Your task to perform on an android device: open app "Gmail" (install if not already installed) Image 0: 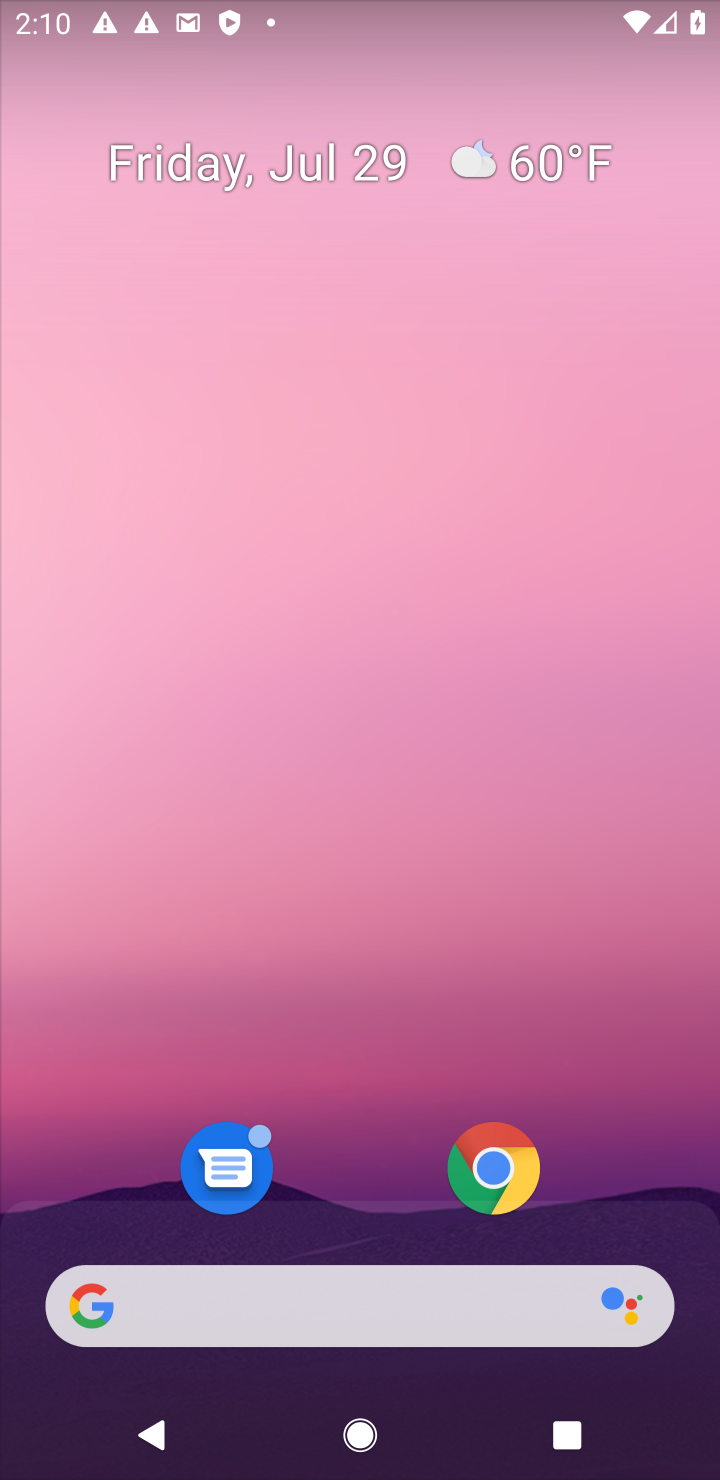
Step 0: drag from (474, 1332) to (479, 515)
Your task to perform on an android device: open app "Gmail" (install if not already installed) Image 1: 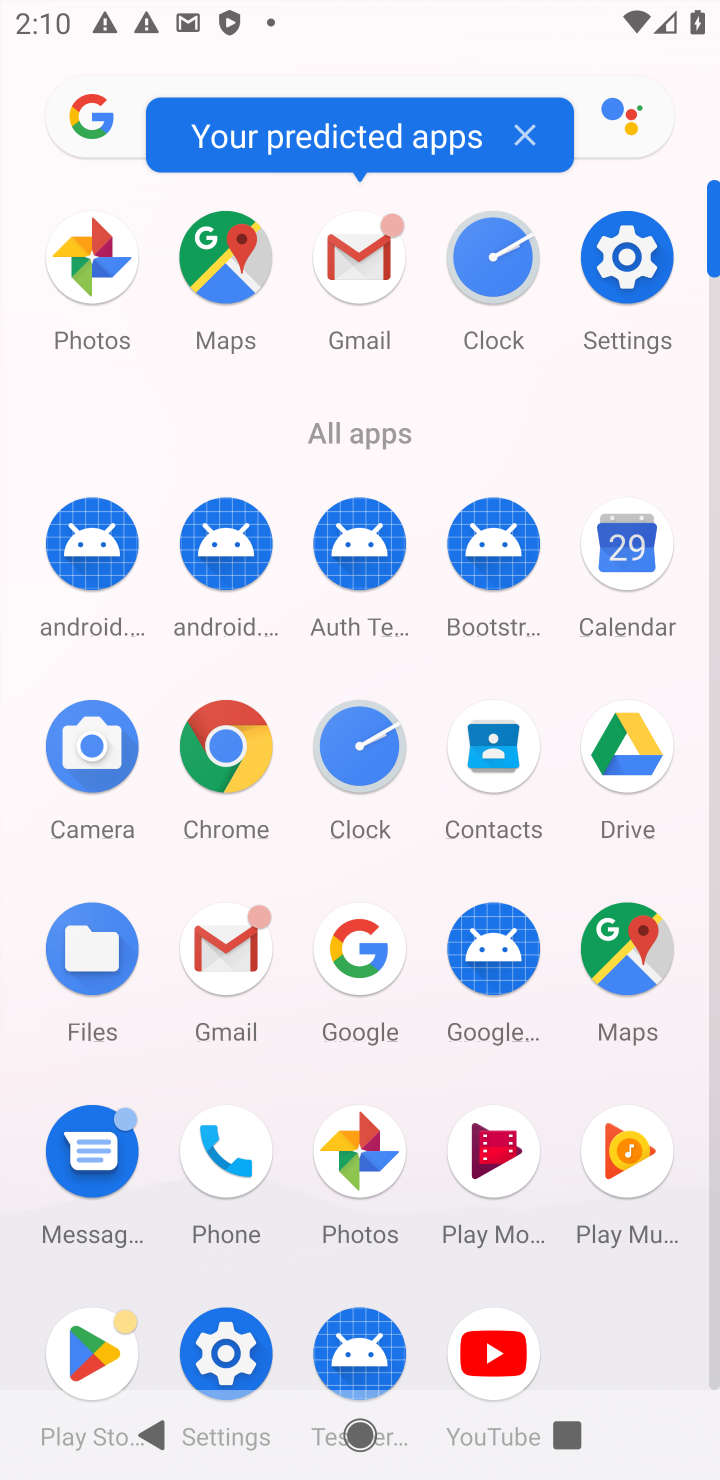
Step 1: click (349, 260)
Your task to perform on an android device: open app "Gmail" (install if not already installed) Image 2: 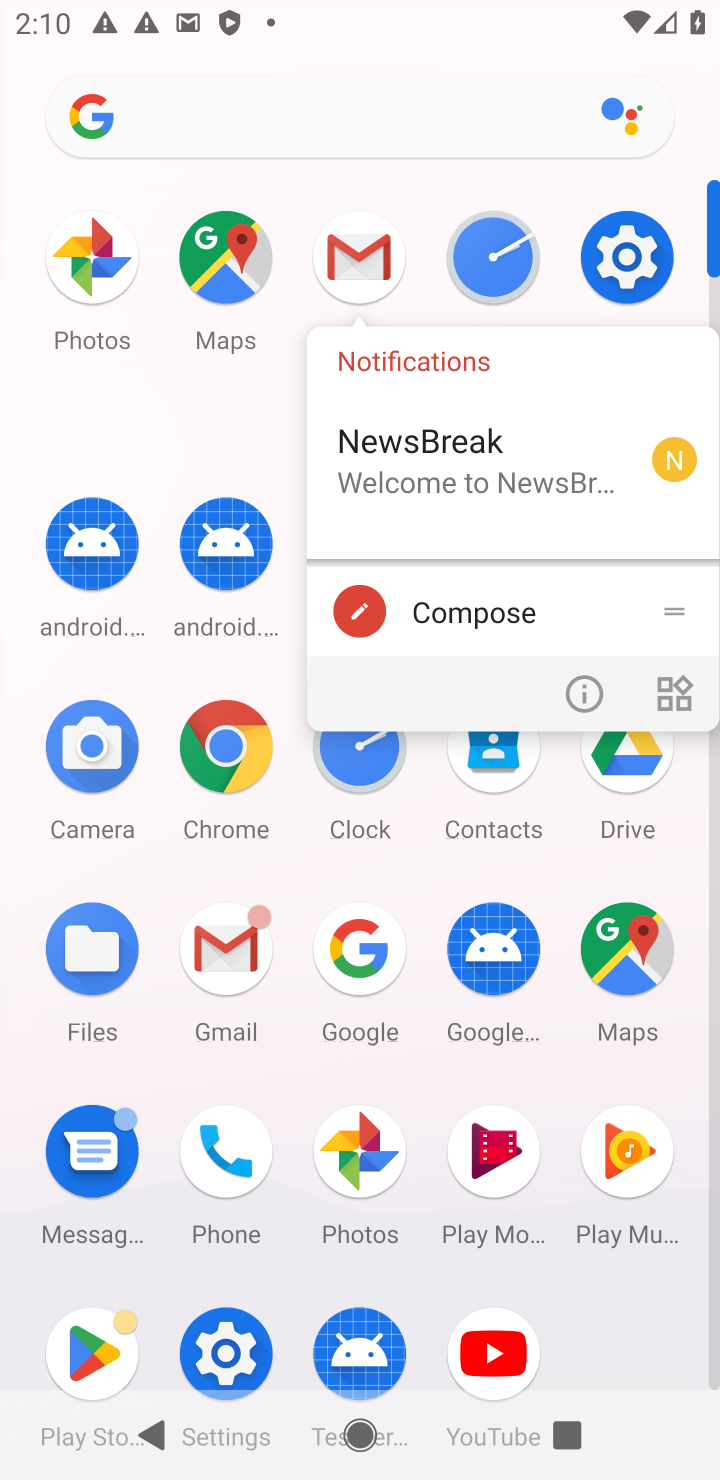
Step 2: click (366, 254)
Your task to perform on an android device: open app "Gmail" (install if not already installed) Image 3: 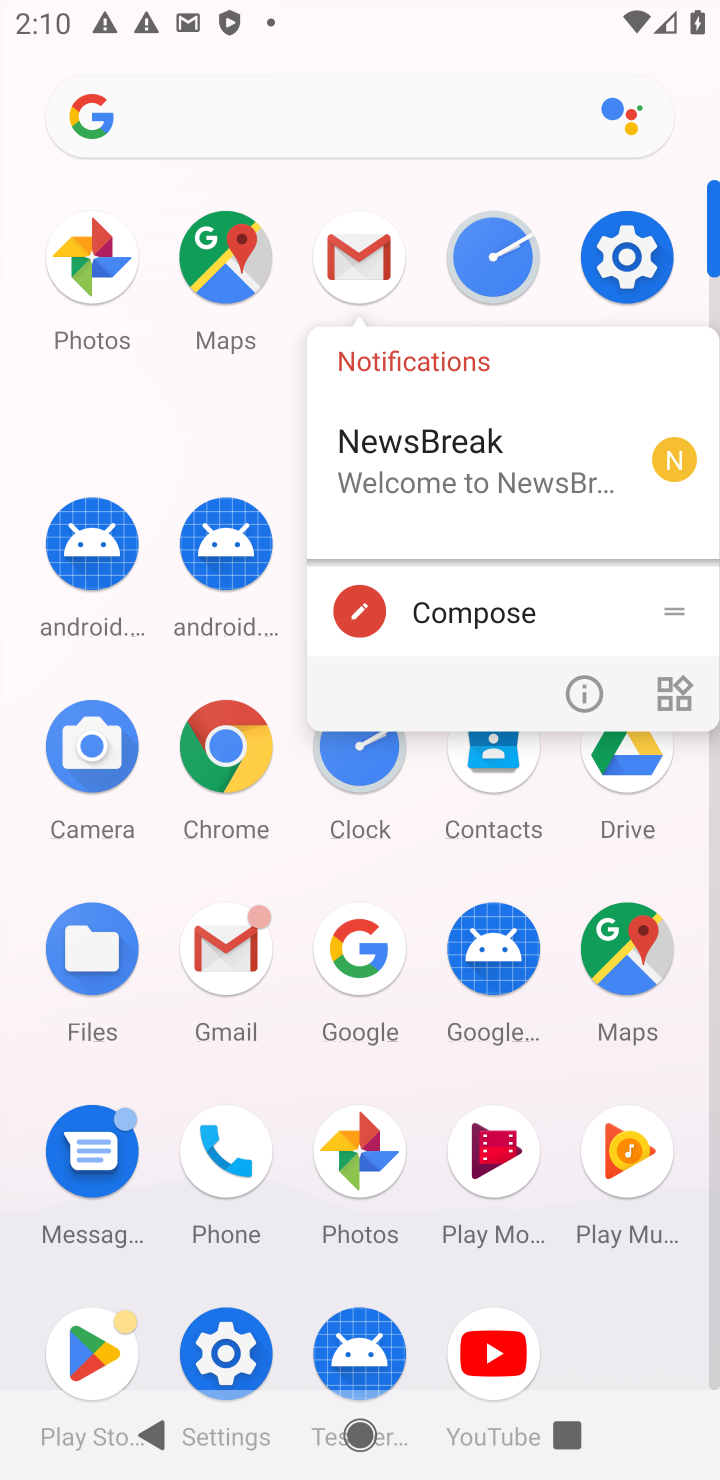
Step 3: click (353, 262)
Your task to perform on an android device: open app "Gmail" (install if not already installed) Image 4: 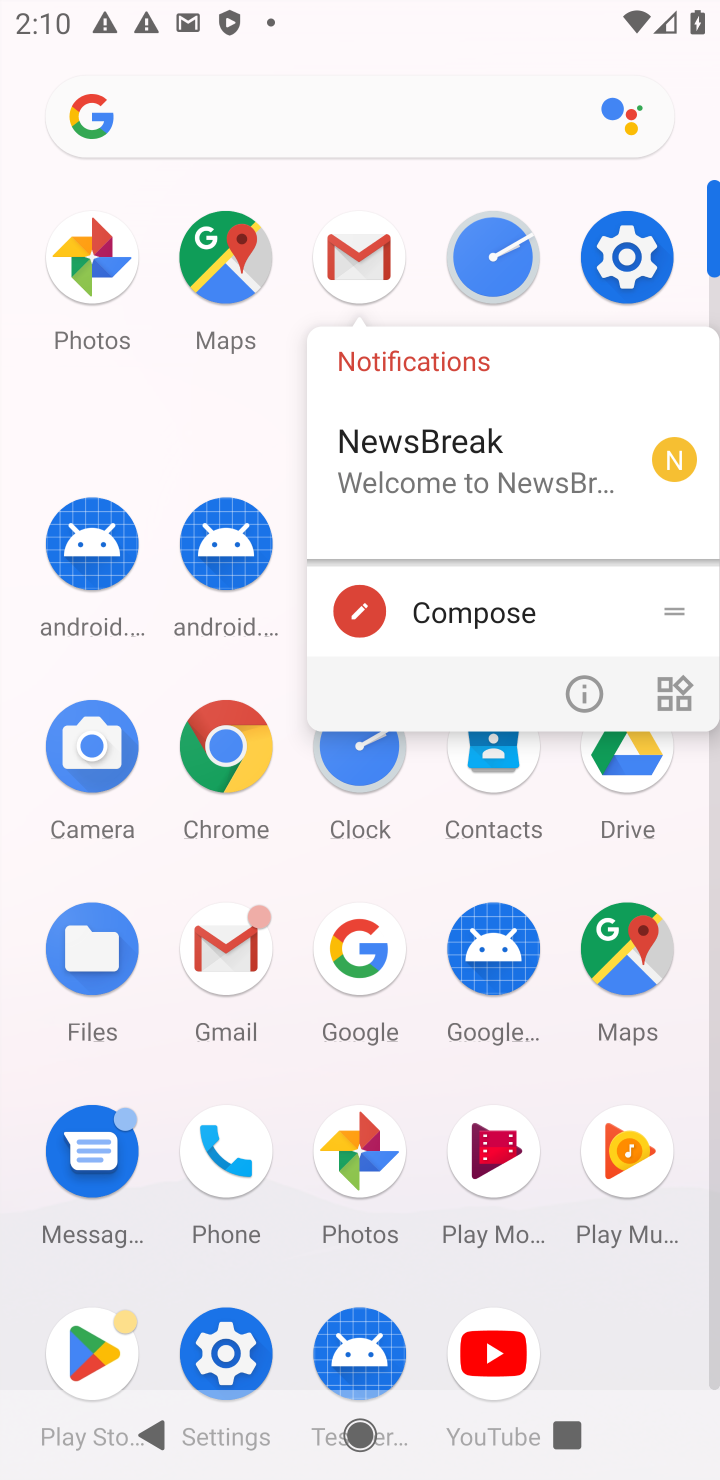
Step 4: click (240, 979)
Your task to perform on an android device: open app "Gmail" (install if not already installed) Image 5: 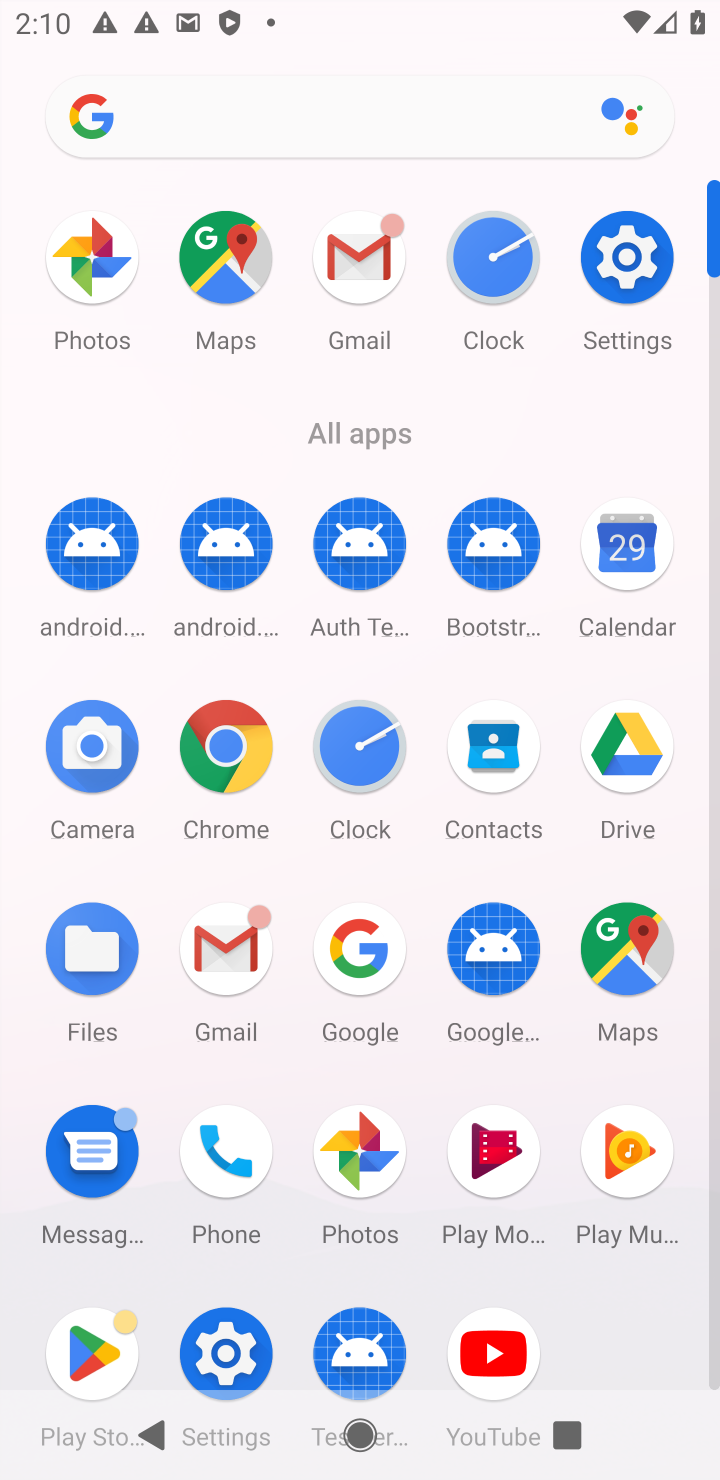
Step 5: click (225, 960)
Your task to perform on an android device: open app "Gmail" (install if not already installed) Image 6: 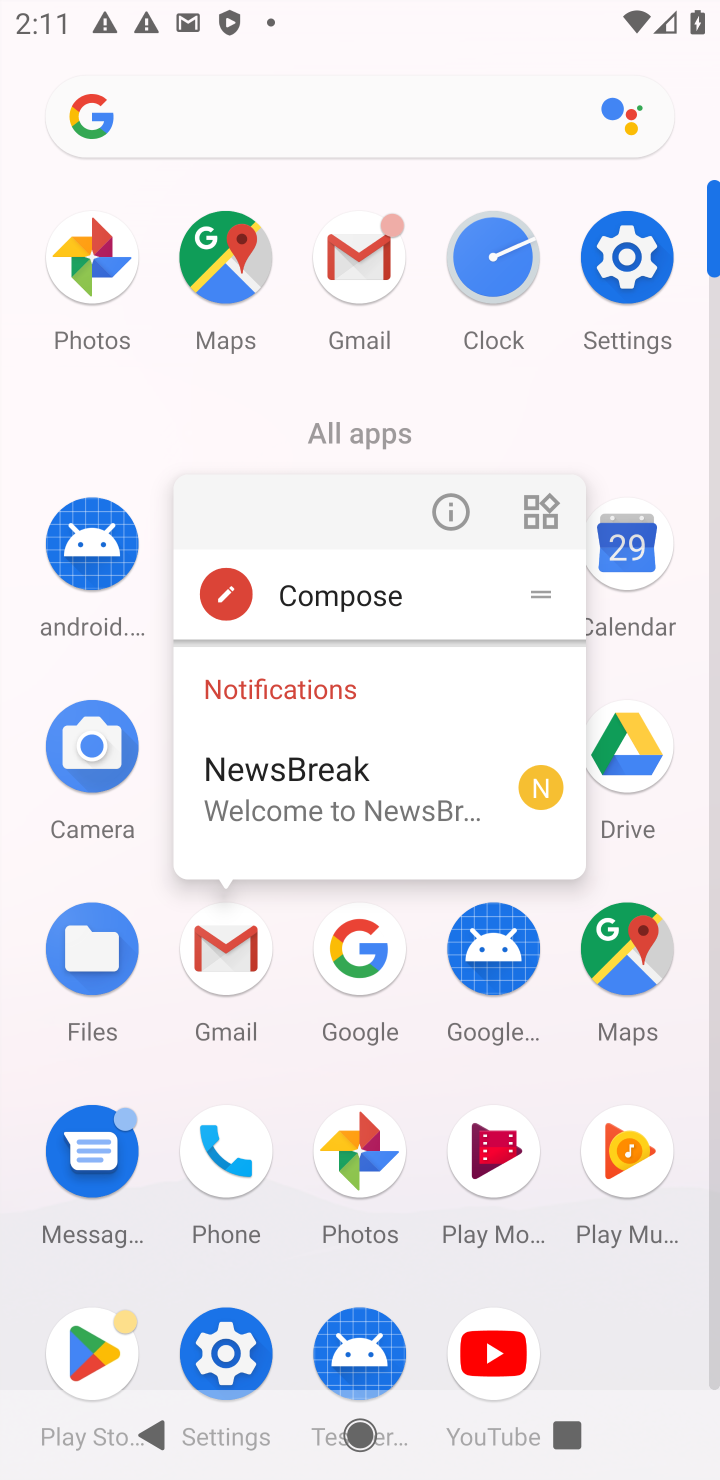
Step 6: click (225, 960)
Your task to perform on an android device: open app "Gmail" (install if not already installed) Image 7: 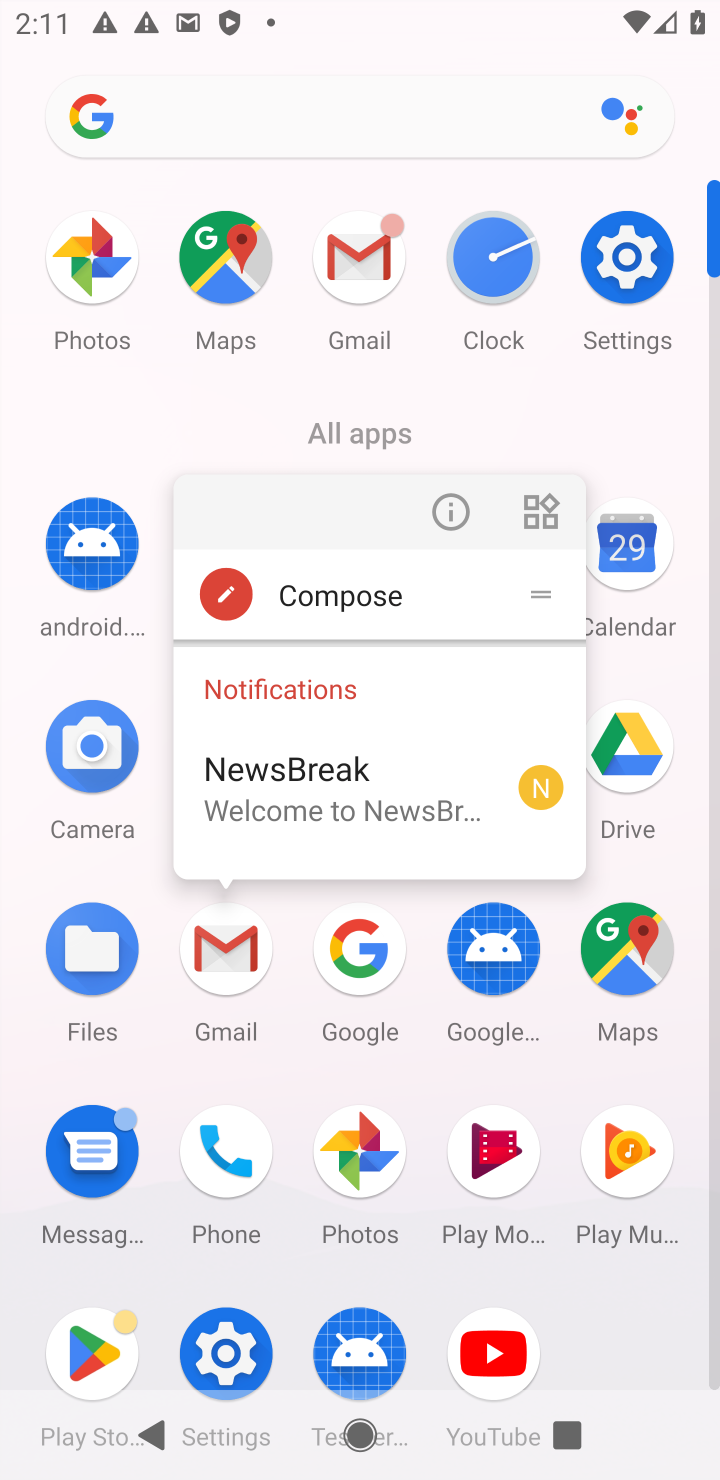
Step 7: click (225, 960)
Your task to perform on an android device: open app "Gmail" (install if not already installed) Image 8: 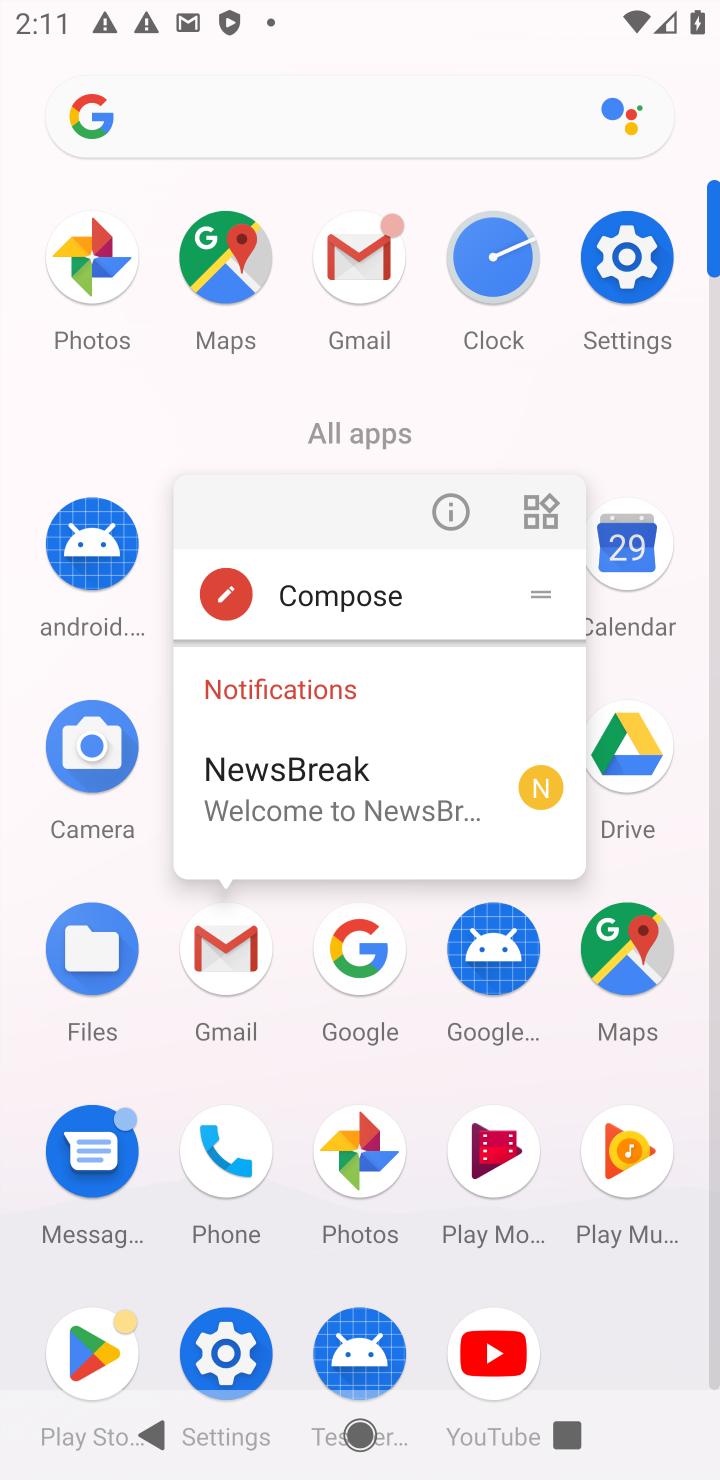
Step 8: click (225, 960)
Your task to perform on an android device: open app "Gmail" (install if not already installed) Image 9: 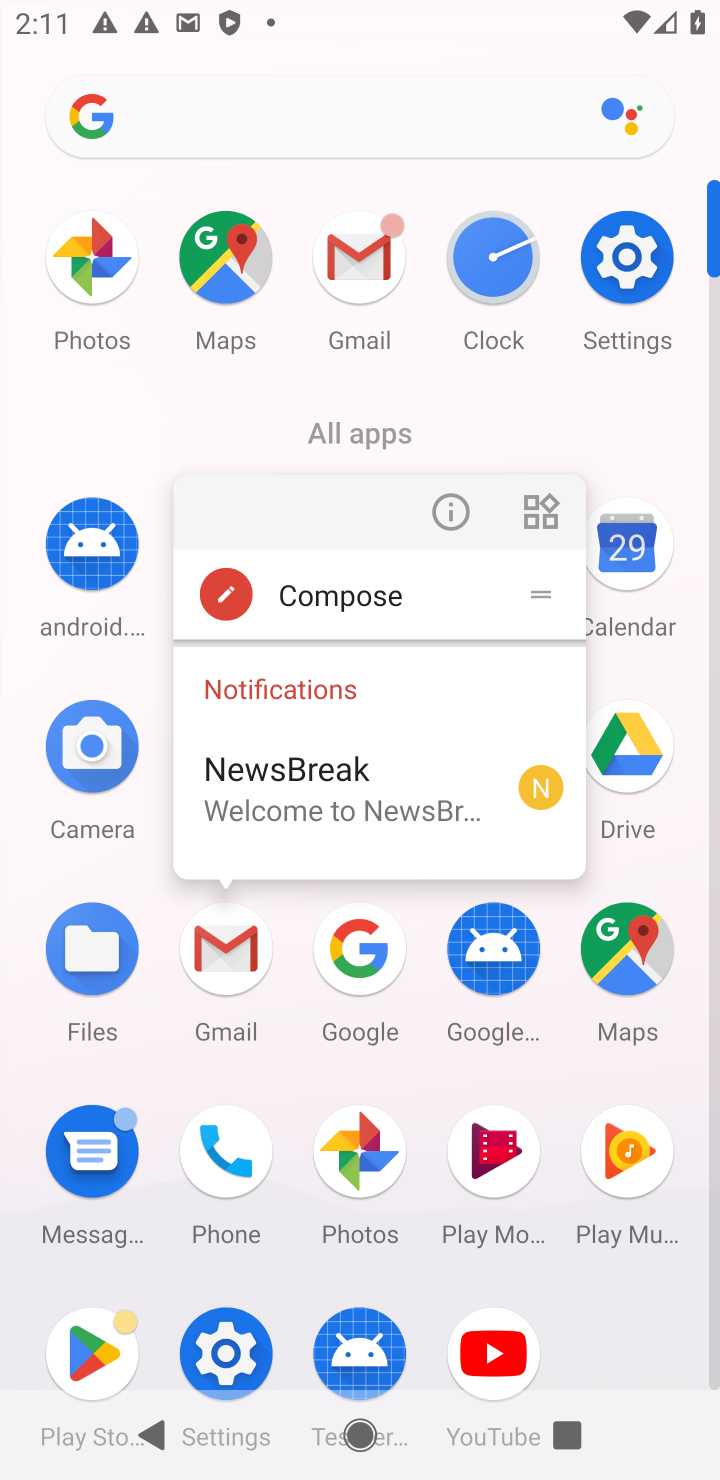
Step 9: click (225, 960)
Your task to perform on an android device: open app "Gmail" (install if not already installed) Image 10: 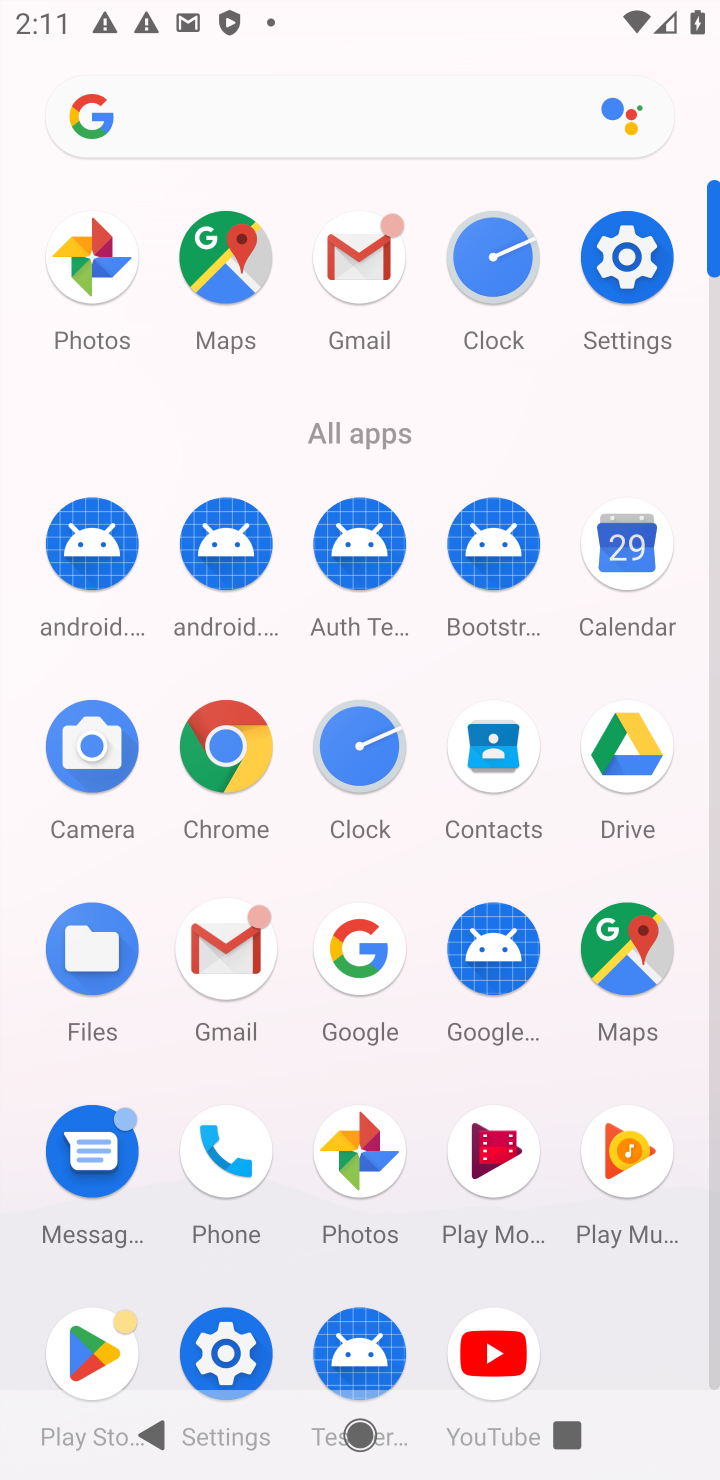
Step 10: click (225, 960)
Your task to perform on an android device: open app "Gmail" (install if not already installed) Image 11: 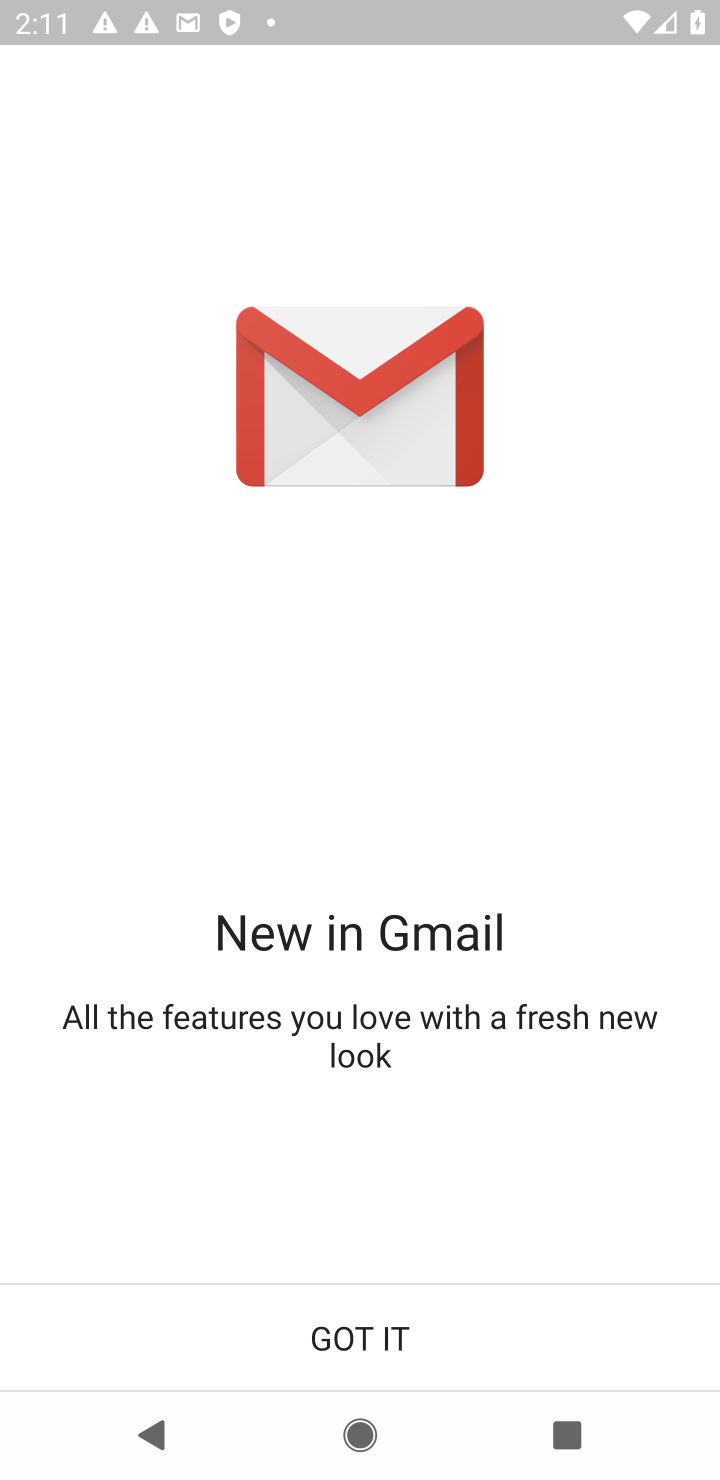
Step 11: click (397, 1374)
Your task to perform on an android device: open app "Gmail" (install if not already installed) Image 12: 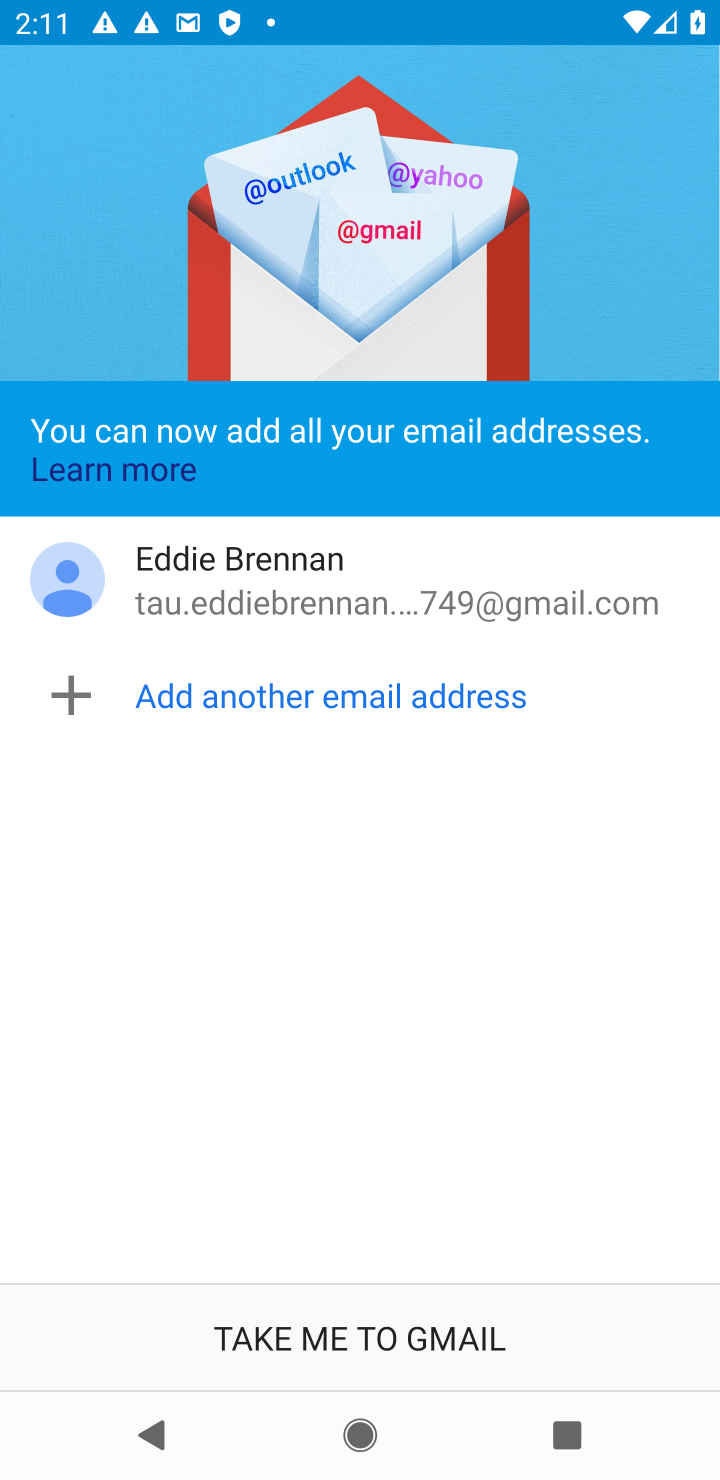
Step 12: click (540, 1324)
Your task to perform on an android device: open app "Gmail" (install if not already installed) Image 13: 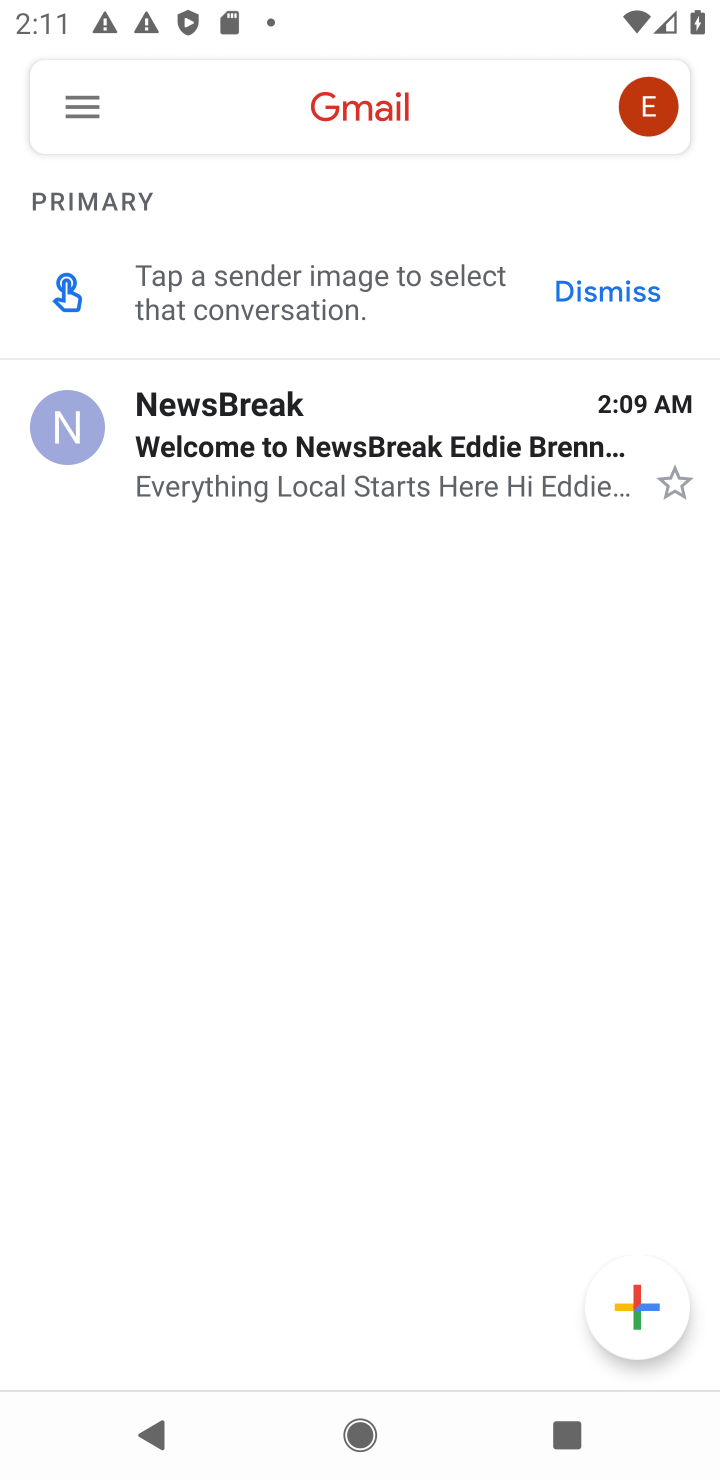
Step 13: task complete